Your task to perform on an android device: Open display settings Image 0: 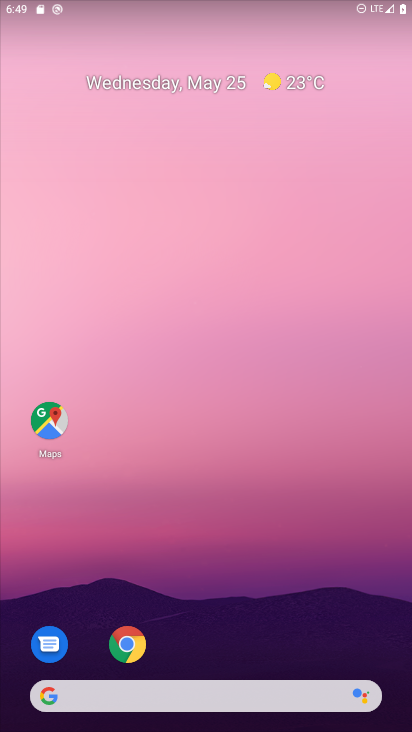
Step 0: drag from (358, 654) to (273, 18)
Your task to perform on an android device: Open display settings Image 1: 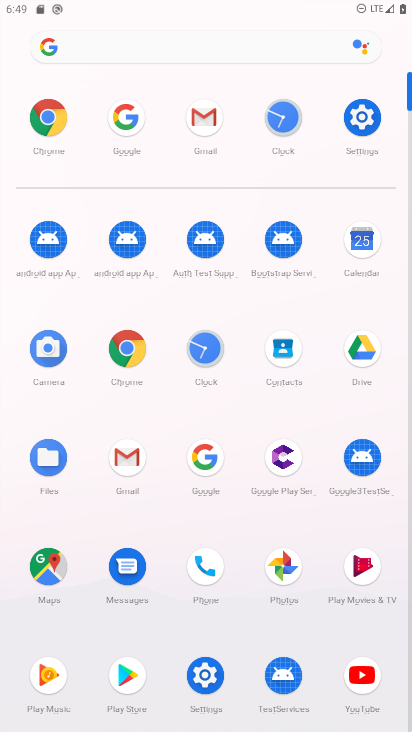
Step 1: click (206, 683)
Your task to perform on an android device: Open display settings Image 2: 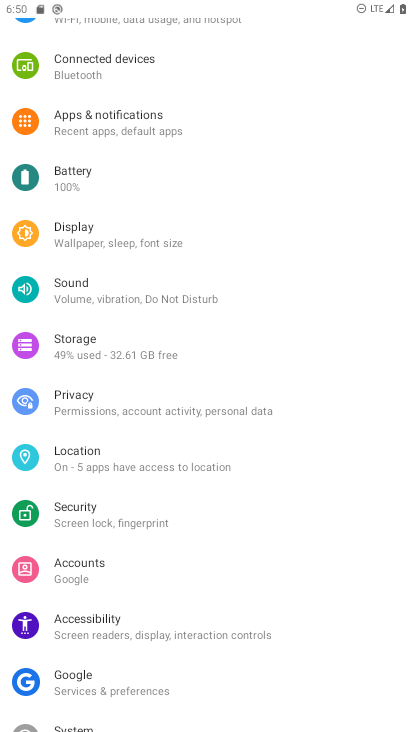
Step 2: click (103, 246)
Your task to perform on an android device: Open display settings Image 3: 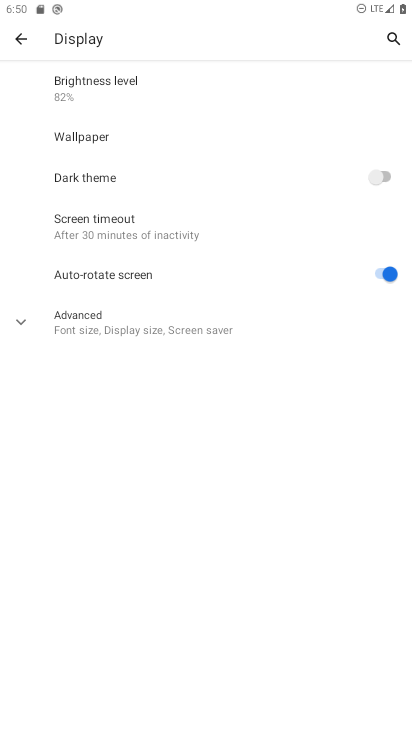
Step 3: task complete